Your task to perform on an android device: Show me recent news Image 0: 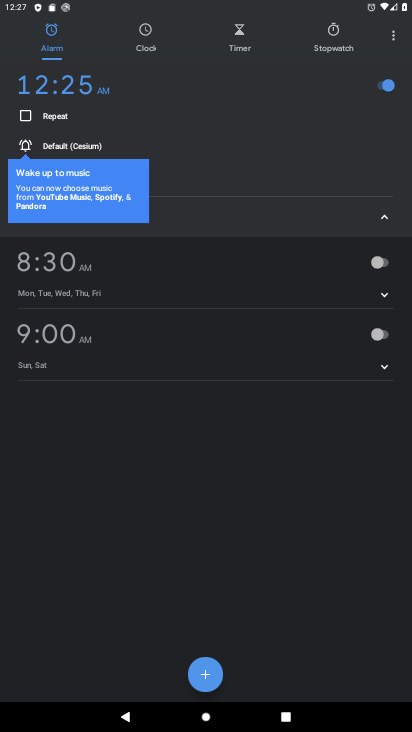
Step 0: press home button
Your task to perform on an android device: Show me recent news Image 1: 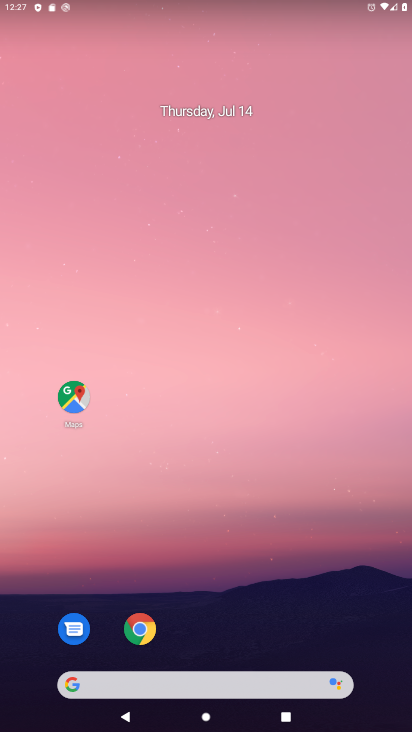
Step 1: click (220, 683)
Your task to perform on an android device: Show me recent news Image 2: 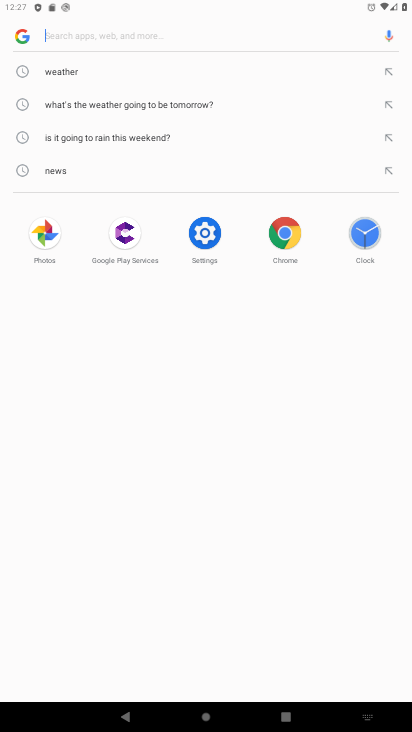
Step 2: click (61, 171)
Your task to perform on an android device: Show me recent news Image 3: 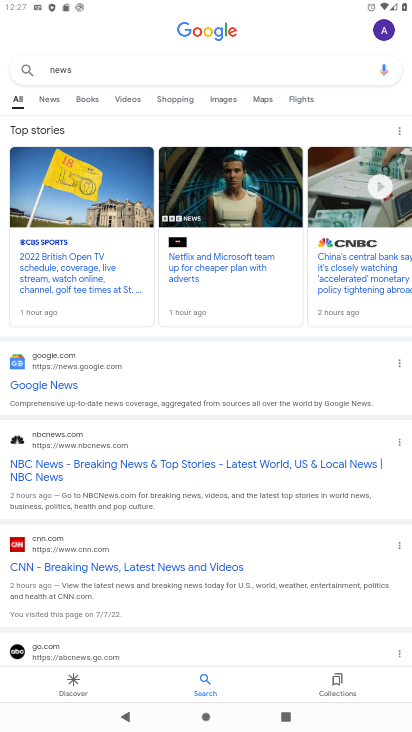
Step 3: click (57, 103)
Your task to perform on an android device: Show me recent news Image 4: 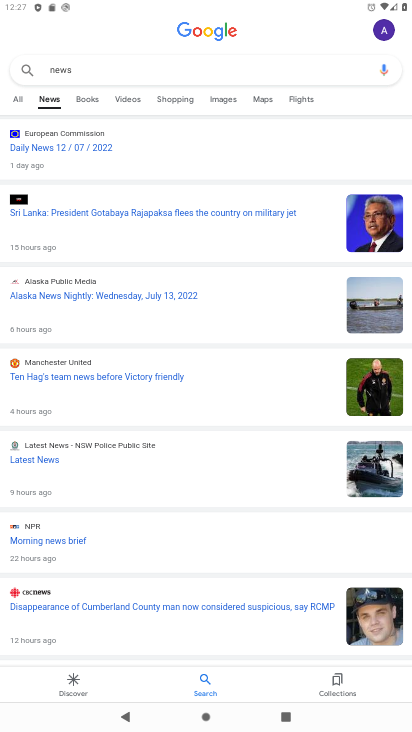
Step 4: task complete